Your task to perform on an android device: create a new album in the google photos Image 0: 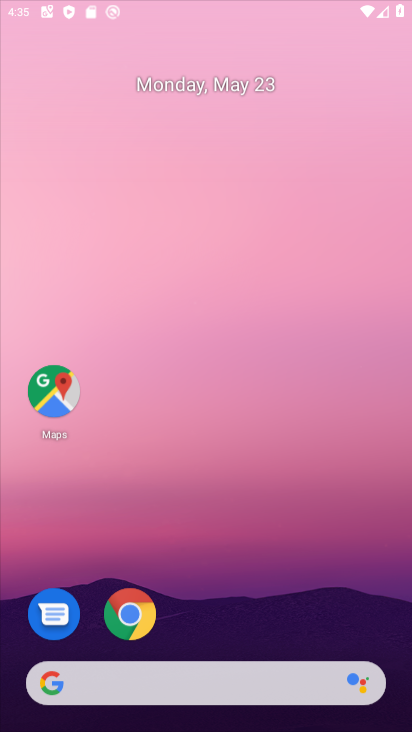
Step 0: click (296, 95)
Your task to perform on an android device: create a new album in the google photos Image 1: 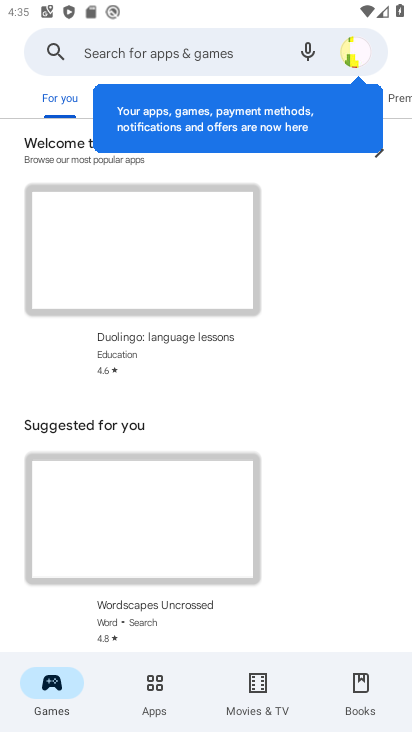
Step 1: press home button
Your task to perform on an android device: create a new album in the google photos Image 2: 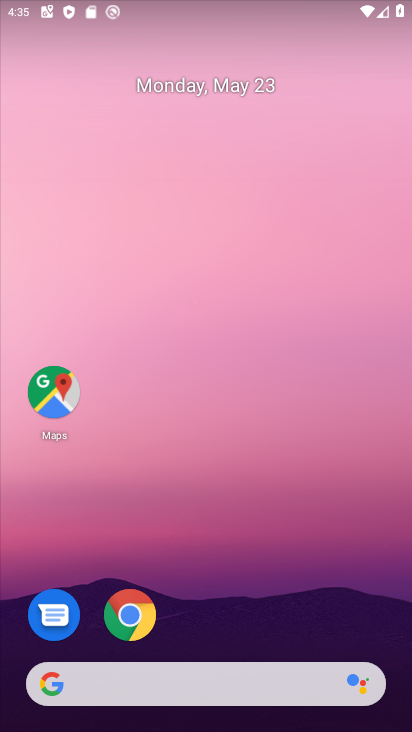
Step 2: drag from (162, 602) to (278, 129)
Your task to perform on an android device: create a new album in the google photos Image 3: 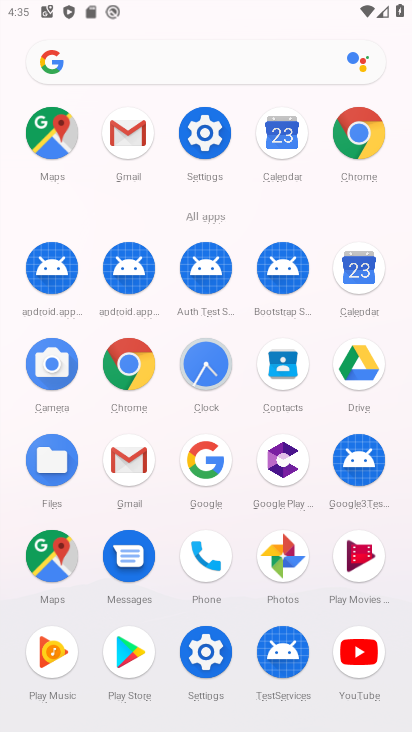
Step 3: click (282, 542)
Your task to perform on an android device: create a new album in the google photos Image 4: 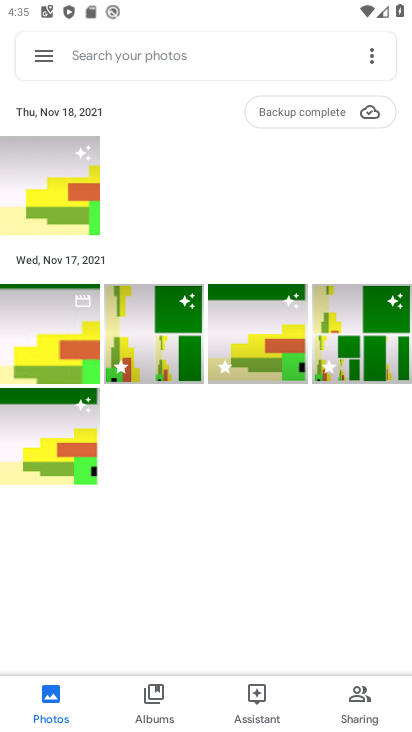
Step 4: click (363, 56)
Your task to perform on an android device: create a new album in the google photos Image 5: 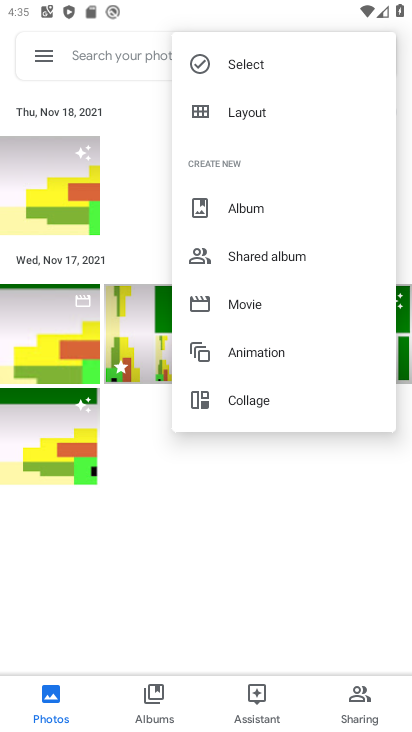
Step 5: click (252, 198)
Your task to perform on an android device: create a new album in the google photos Image 6: 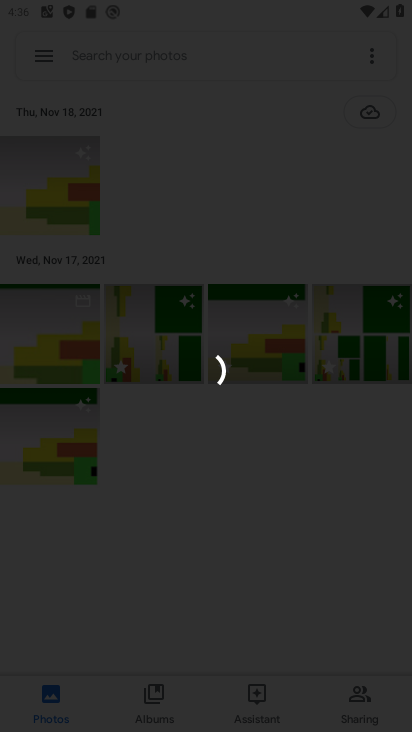
Step 6: click (227, 449)
Your task to perform on an android device: create a new album in the google photos Image 7: 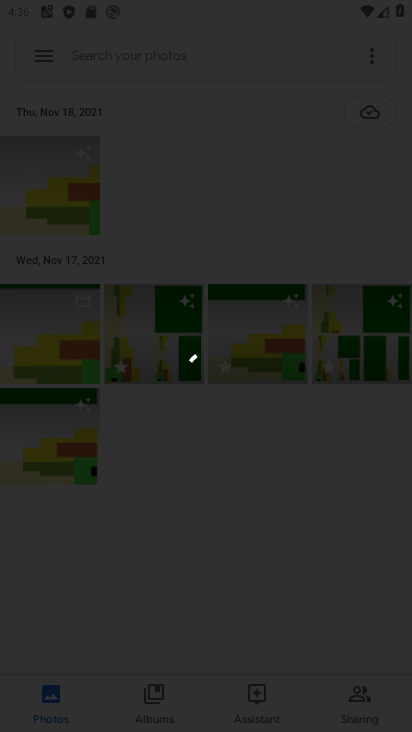
Step 7: task complete